Your task to perform on an android device: Go to privacy settings Image 0: 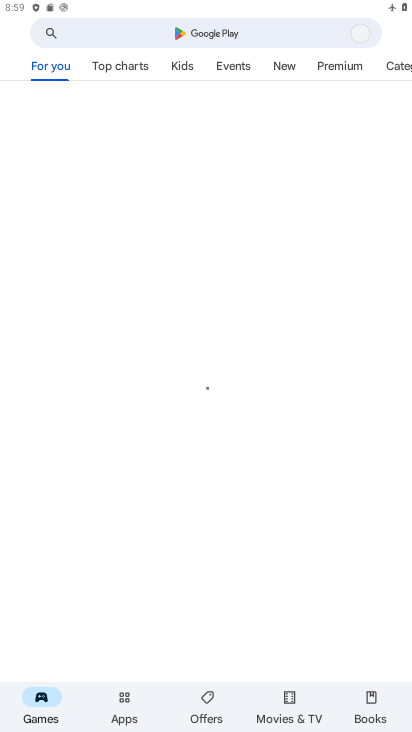
Step 0: press home button
Your task to perform on an android device: Go to privacy settings Image 1: 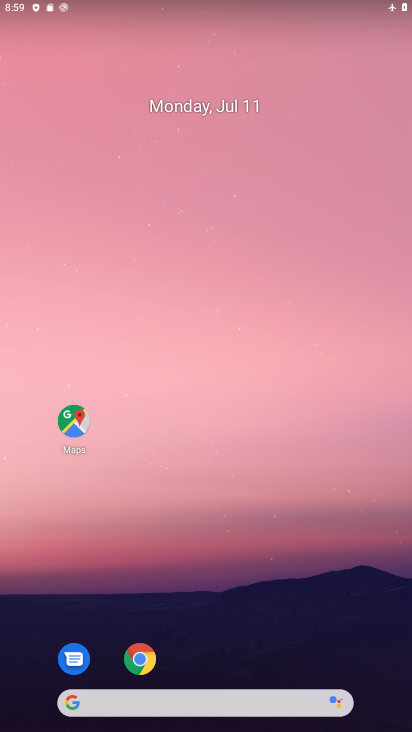
Step 1: drag from (205, 652) to (219, 223)
Your task to perform on an android device: Go to privacy settings Image 2: 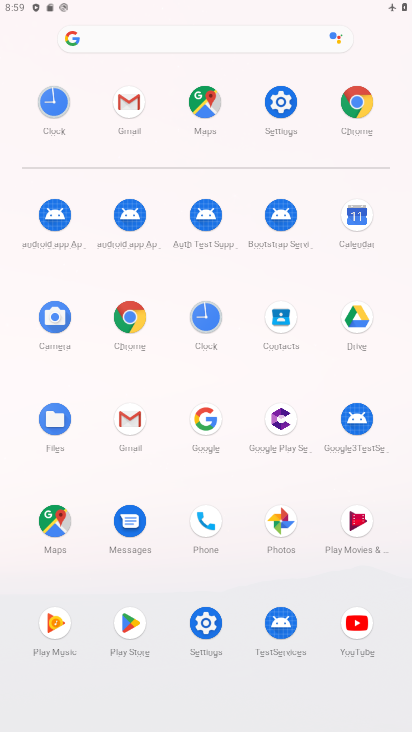
Step 2: click (258, 98)
Your task to perform on an android device: Go to privacy settings Image 3: 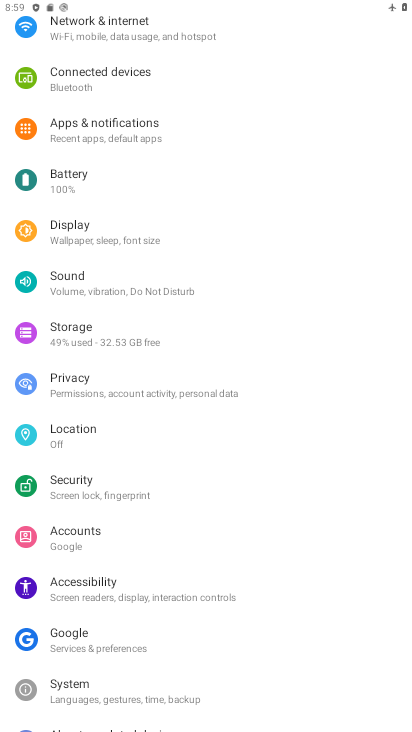
Step 3: click (75, 401)
Your task to perform on an android device: Go to privacy settings Image 4: 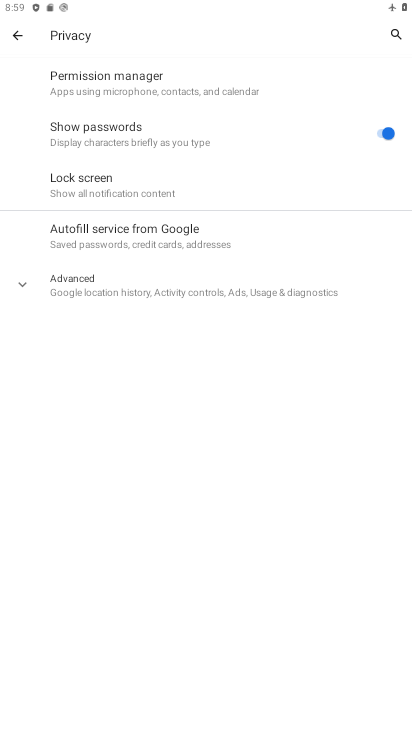
Step 4: task complete